Your task to perform on an android device: turn on the 24-hour format for clock Image 0: 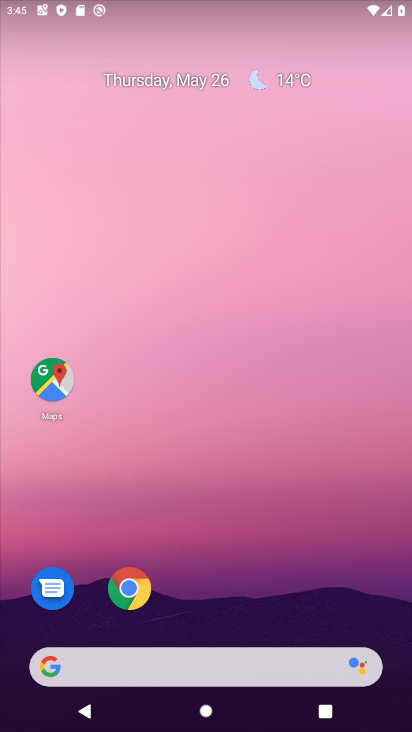
Step 0: drag from (314, 598) to (248, 14)
Your task to perform on an android device: turn on the 24-hour format for clock Image 1: 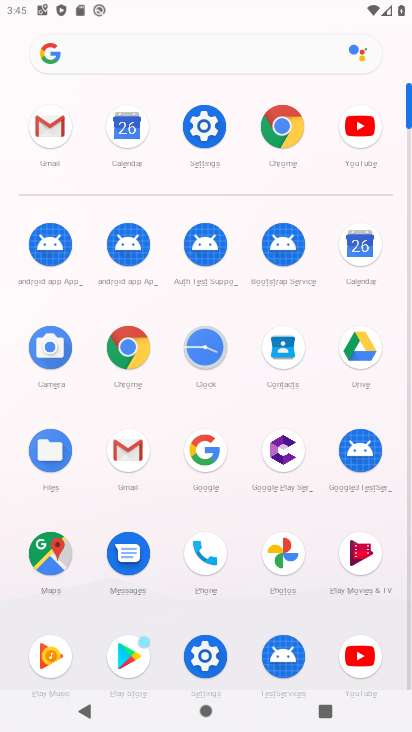
Step 1: click (201, 146)
Your task to perform on an android device: turn on the 24-hour format for clock Image 2: 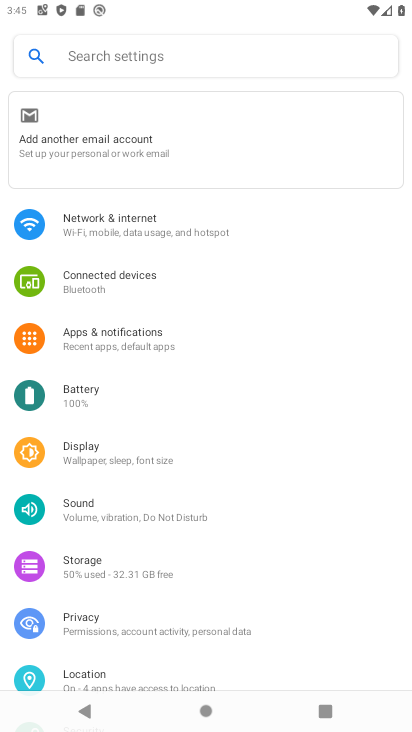
Step 2: press home button
Your task to perform on an android device: turn on the 24-hour format for clock Image 3: 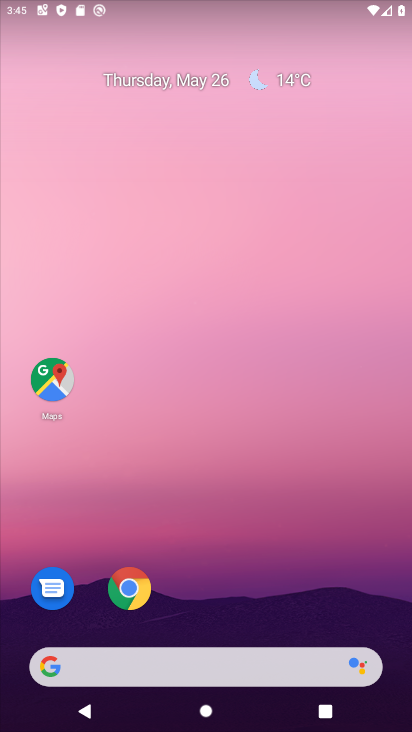
Step 3: drag from (254, 594) to (238, 96)
Your task to perform on an android device: turn on the 24-hour format for clock Image 4: 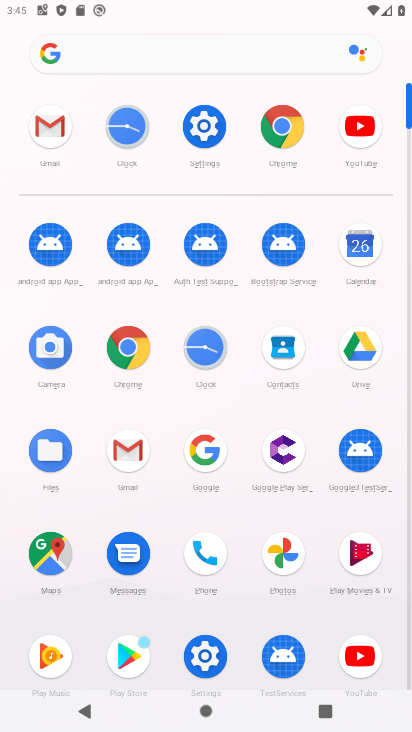
Step 4: click (111, 141)
Your task to perform on an android device: turn on the 24-hour format for clock Image 5: 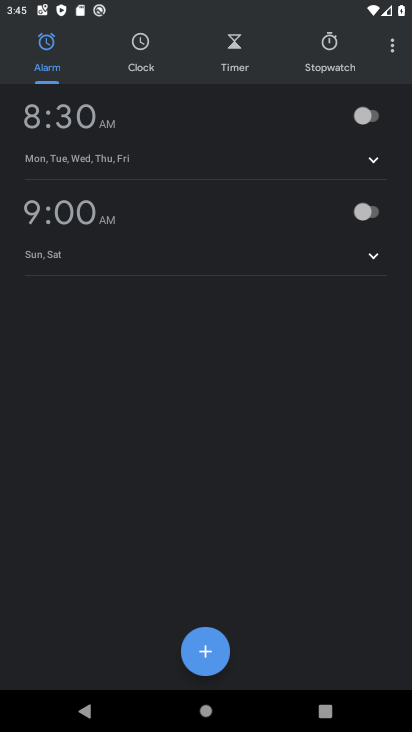
Step 5: click (391, 53)
Your task to perform on an android device: turn on the 24-hour format for clock Image 6: 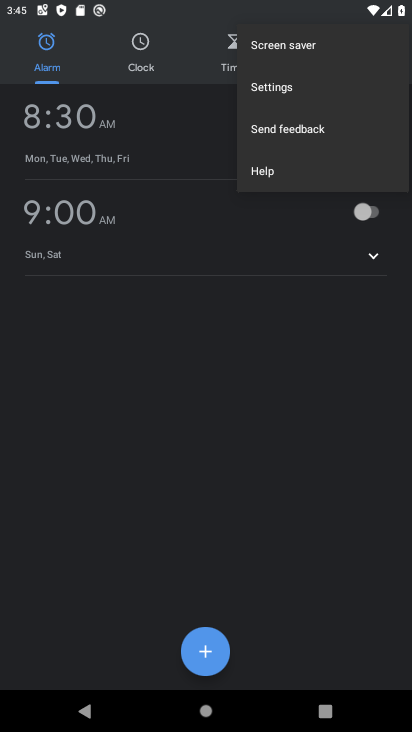
Step 6: click (317, 96)
Your task to perform on an android device: turn on the 24-hour format for clock Image 7: 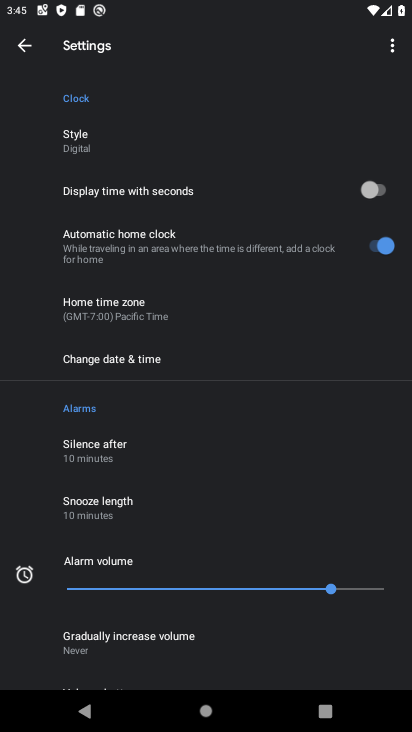
Step 7: drag from (209, 518) to (233, 351)
Your task to perform on an android device: turn on the 24-hour format for clock Image 8: 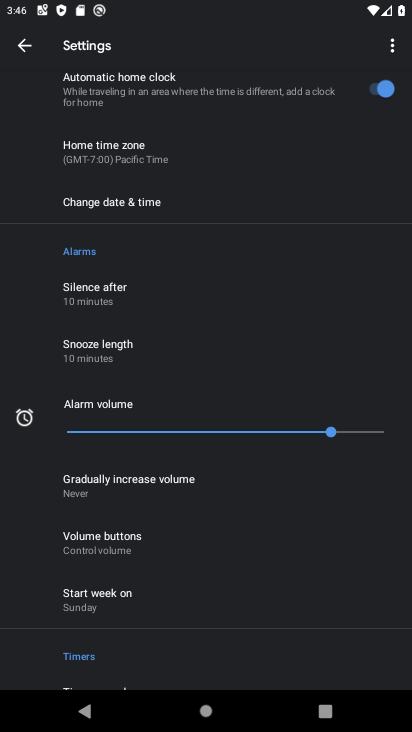
Step 8: click (153, 203)
Your task to perform on an android device: turn on the 24-hour format for clock Image 9: 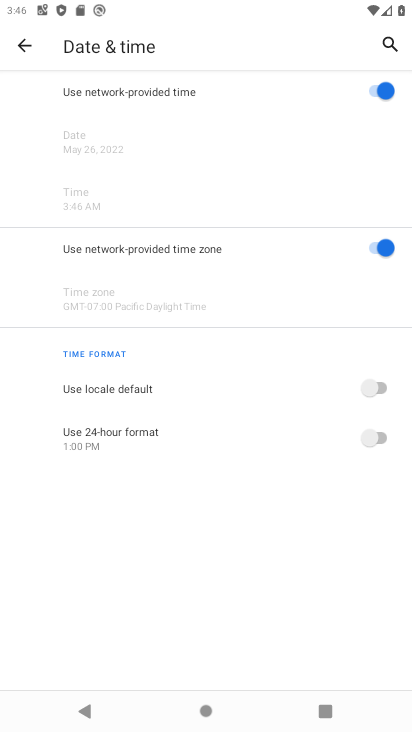
Step 9: click (146, 445)
Your task to perform on an android device: turn on the 24-hour format for clock Image 10: 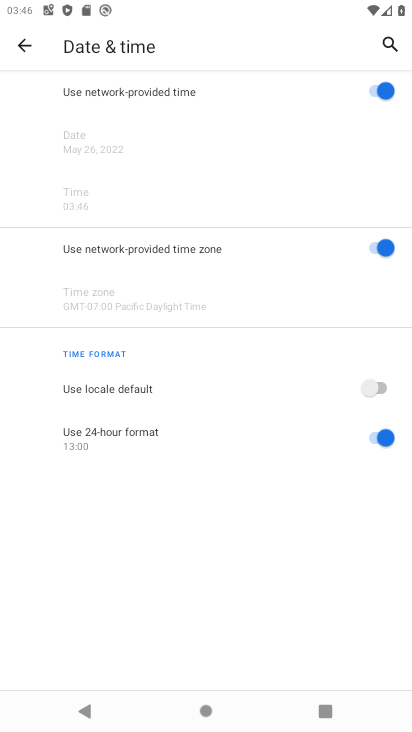
Step 10: task complete